Your task to perform on an android device: install app "The Home Depot" Image 0: 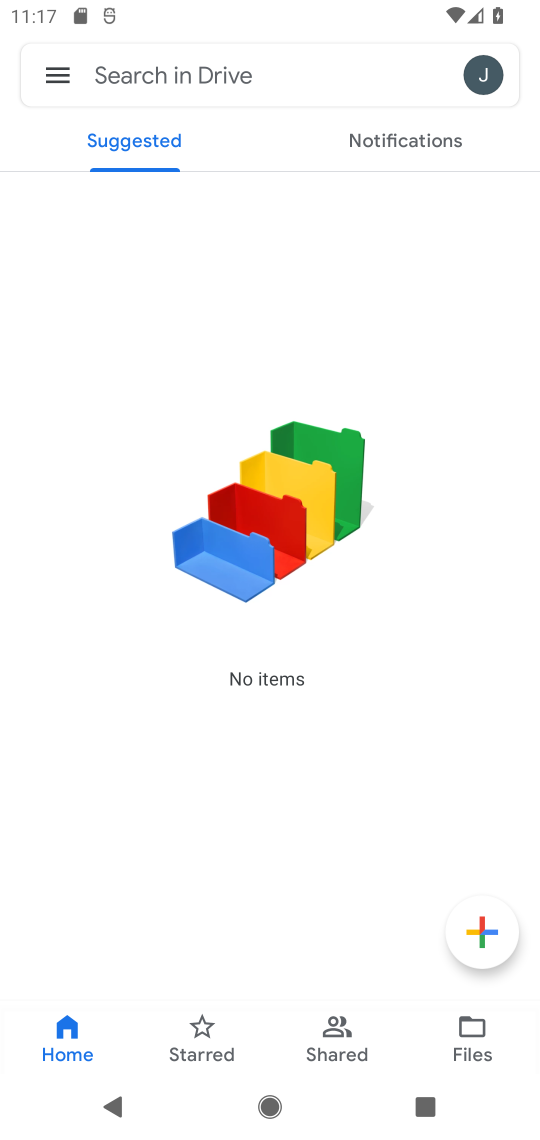
Step 0: press home button
Your task to perform on an android device: install app "The Home Depot" Image 1: 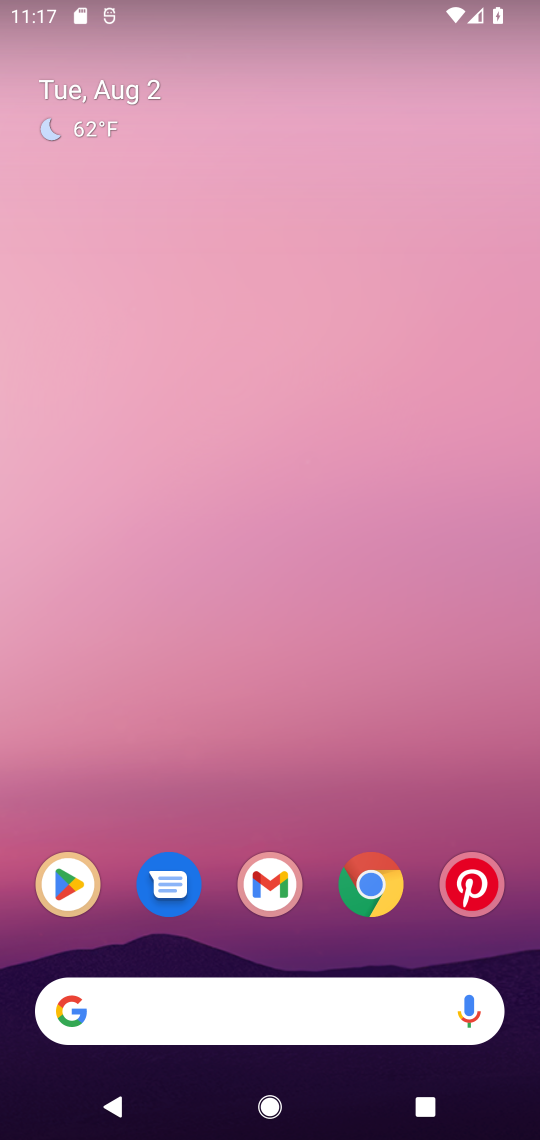
Step 1: click (65, 898)
Your task to perform on an android device: install app "The Home Depot" Image 2: 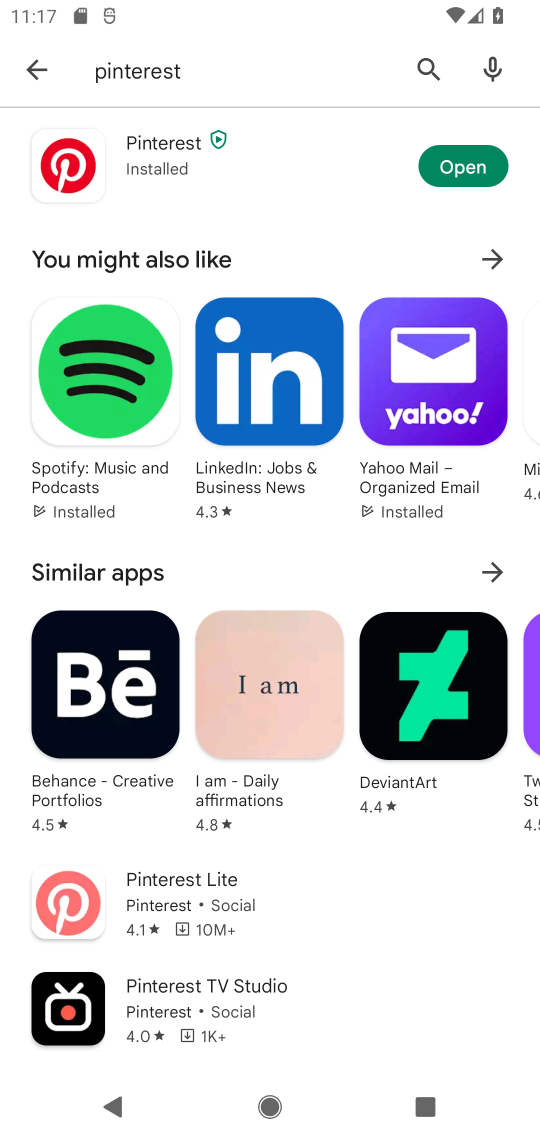
Step 2: click (226, 74)
Your task to perform on an android device: install app "The Home Depot" Image 3: 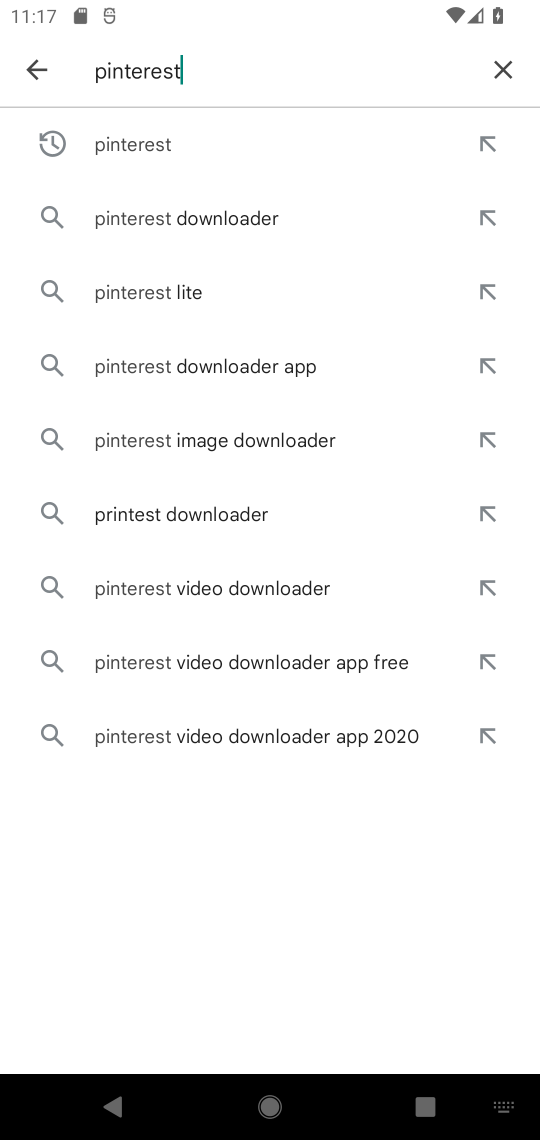
Step 3: click (505, 61)
Your task to perform on an android device: install app "The Home Depot" Image 4: 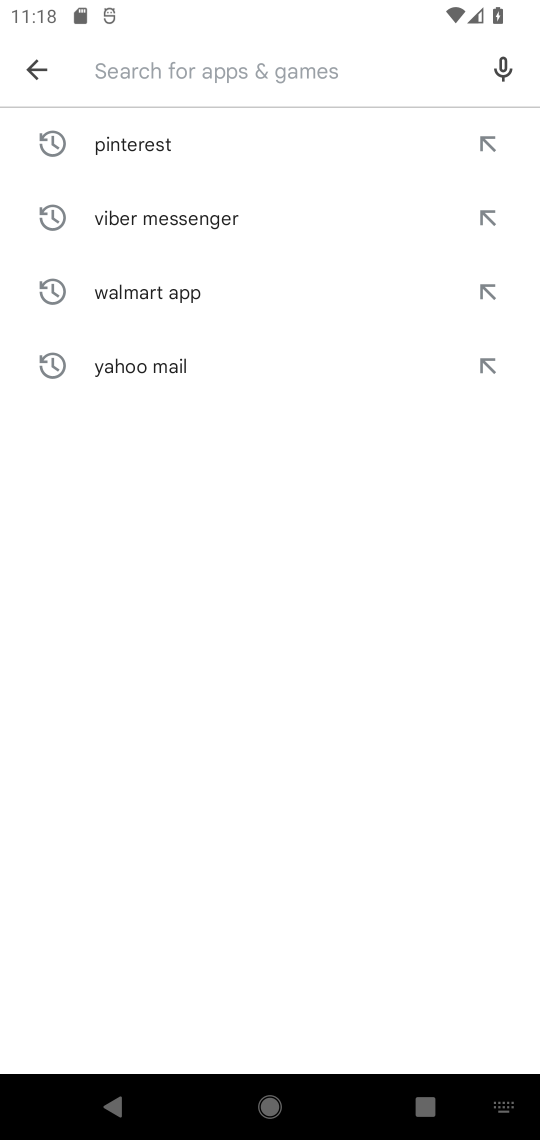
Step 4: type "the home depot"
Your task to perform on an android device: install app "The Home Depot" Image 5: 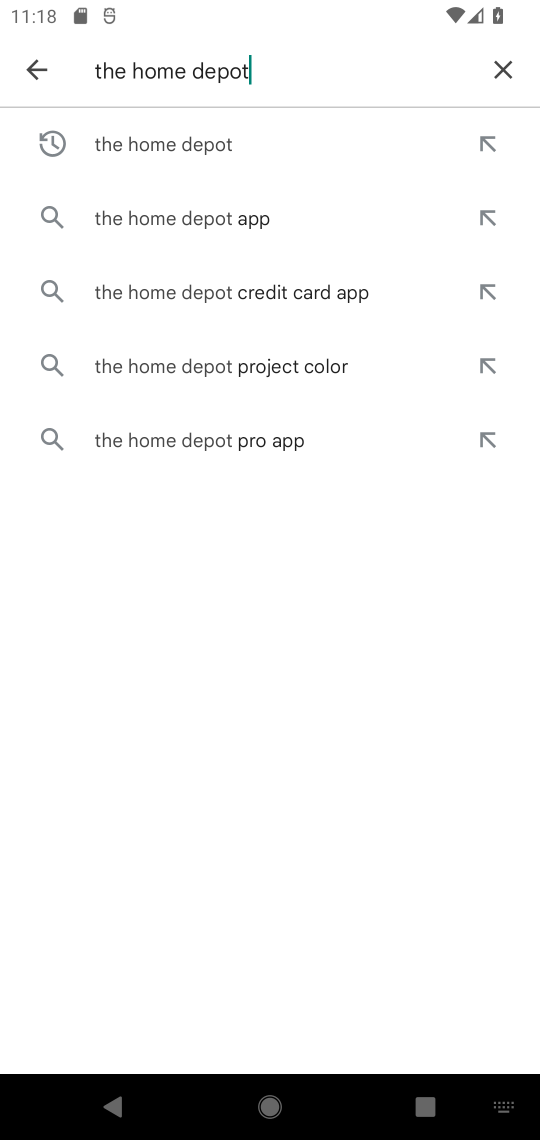
Step 5: click (190, 153)
Your task to perform on an android device: install app "The Home Depot" Image 6: 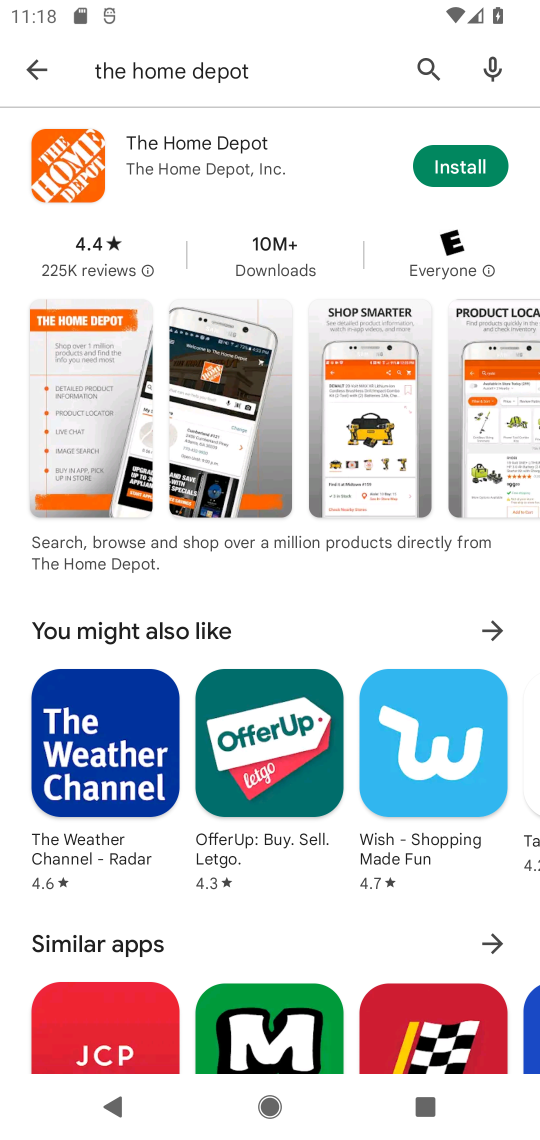
Step 6: click (460, 162)
Your task to perform on an android device: install app "The Home Depot" Image 7: 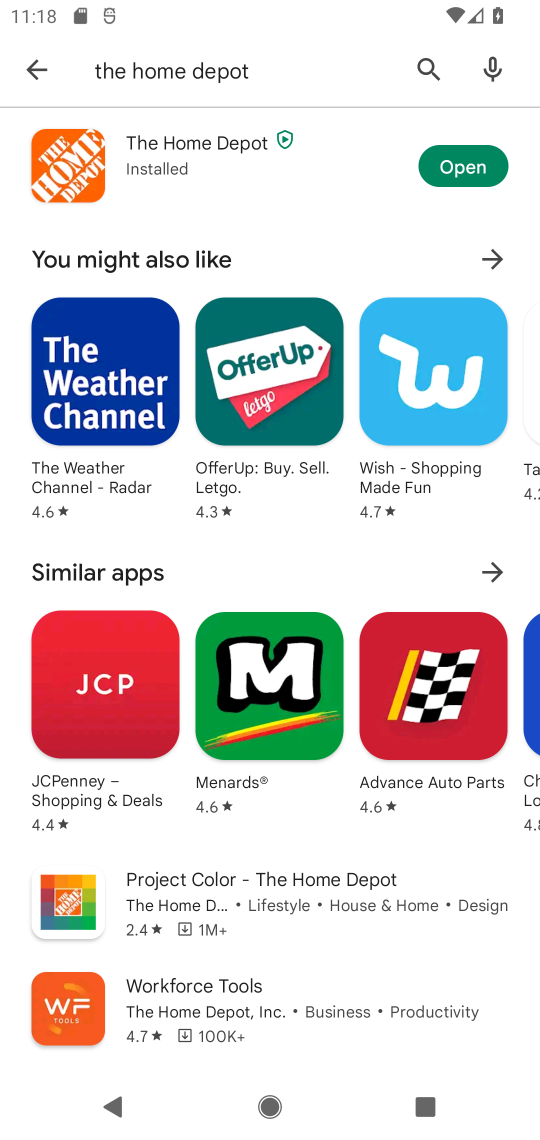
Step 7: task complete